Your task to perform on an android device: Go to Google maps Image 0: 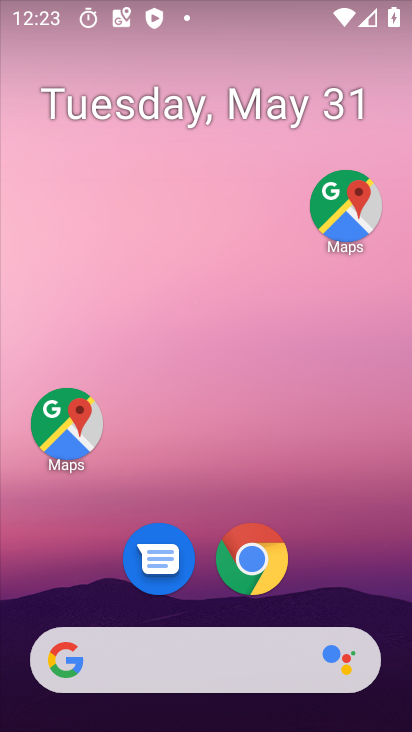
Step 0: click (67, 430)
Your task to perform on an android device: Go to Google maps Image 1: 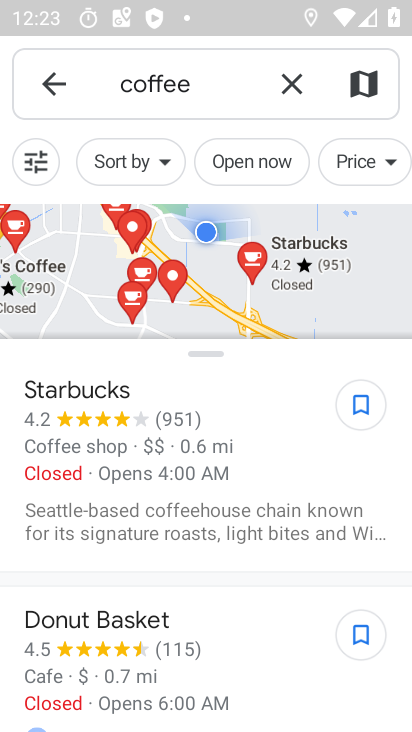
Step 1: task complete